Your task to perform on an android device: set default search engine in the chrome app Image 0: 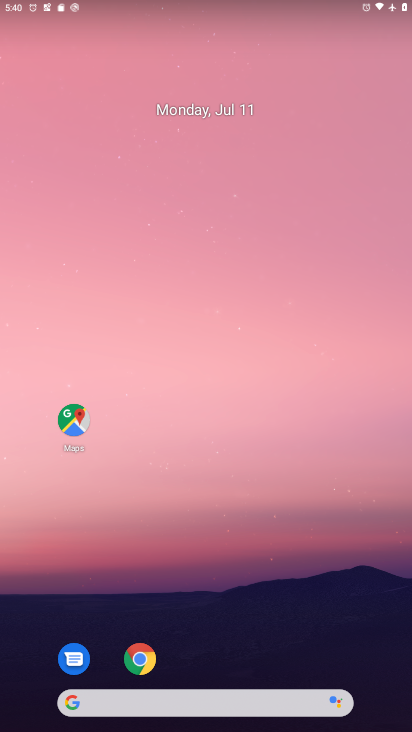
Step 0: click (136, 655)
Your task to perform on an android device: set default search engine in the chrome app Image 1: 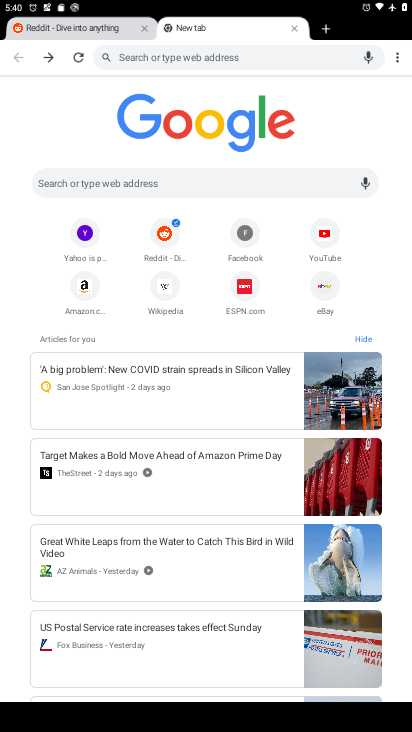
Step 1: click (396, 61)
Your task to perform on an android device: set default search engine in the chrome app Image 2: 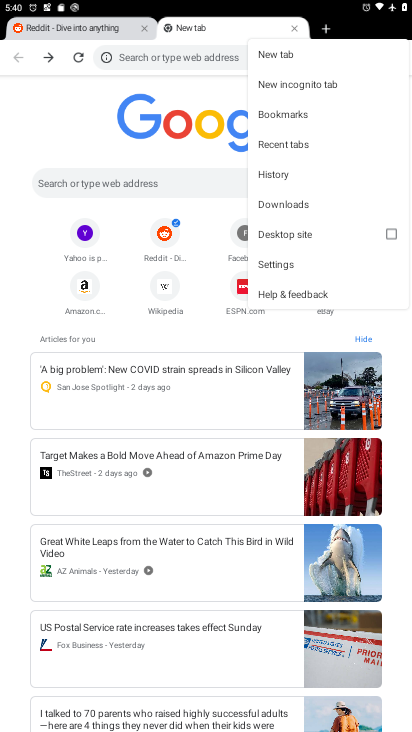
Step 2: click (283, 262)
Your task to perform on an android device: set default search engine in the chrome app Image 3: 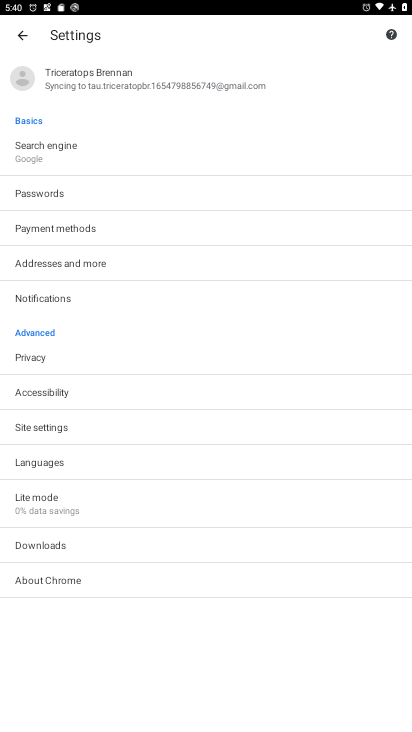
Step 3: click (23, 145)
Your task to perform on an android device: set default search engine in the chrome app Image 4: 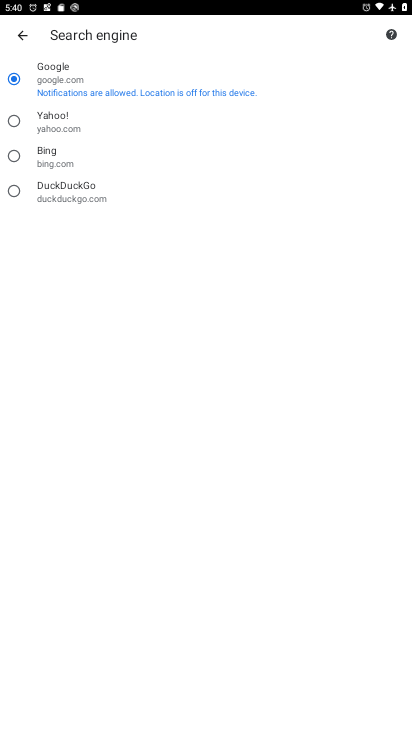
Step 4: click (11, 123)
Your task to perform on an android device: set default search engine in the chrome app Image 5: 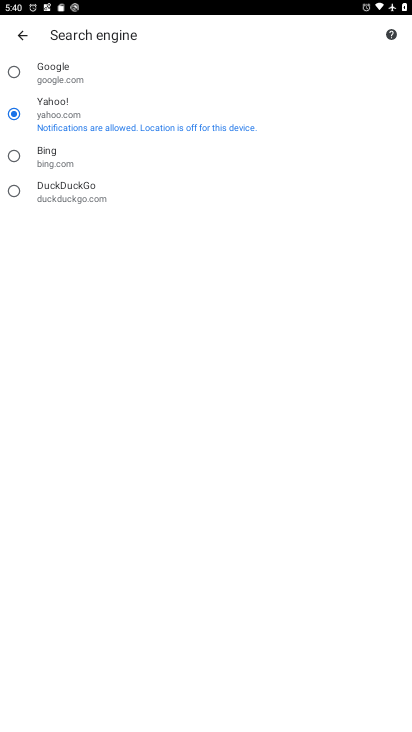
Step 5: task complete